Your task to perform on an android device: Go to Yahoo.com Image 0: 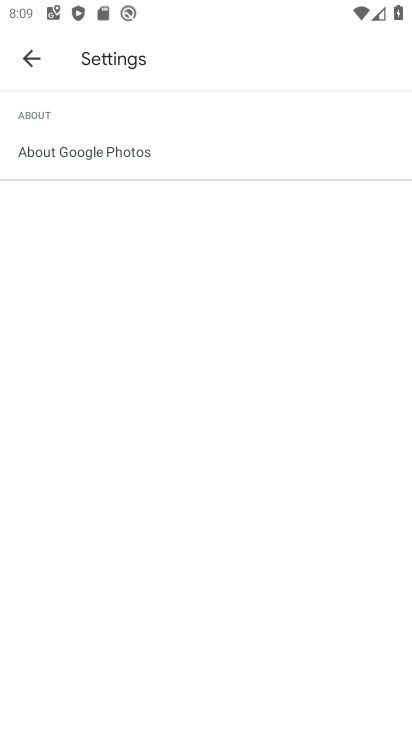
Step 0: press home button
Your task to perform on an android device: Go to Yahoo.com Image 1: 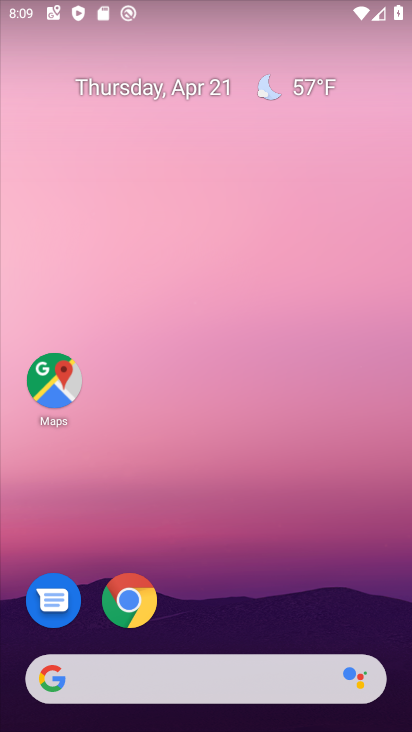
Step 1: click (116, 595)
Your task to perform on an android device: Go to Yahoo.com Image 2: 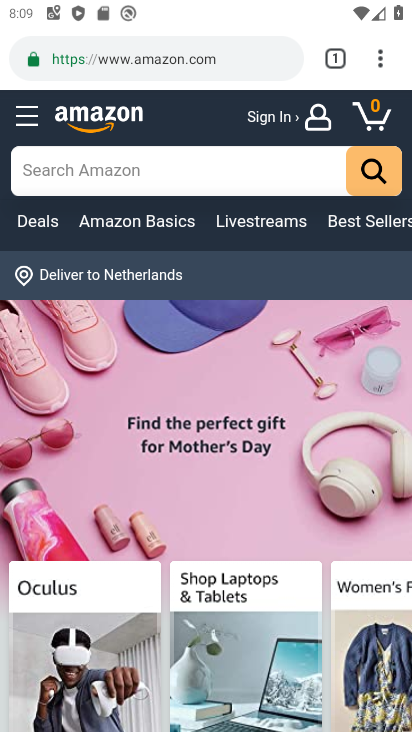
Step 2: press back button
Your task to perform on an android device: Go to Yahoo.com Image 3: 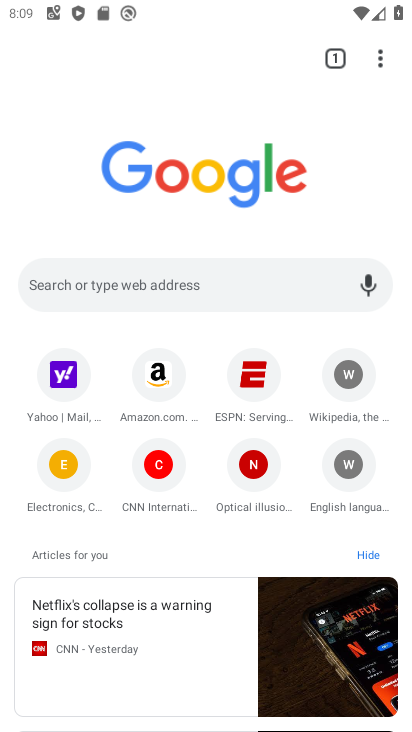
Step 3: click (72, 381)
Your task to perform on an android device: Go to Yahoo.com Image 4: 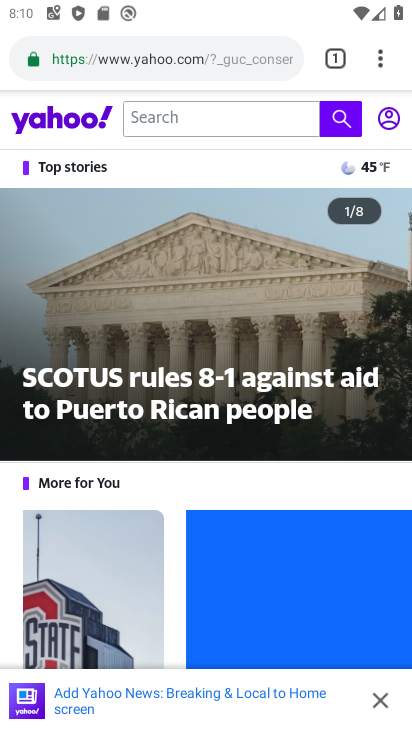
Step 4: task complete